Your task to perform on an android device: remove spam from my inbox in the gmail app Image 0: 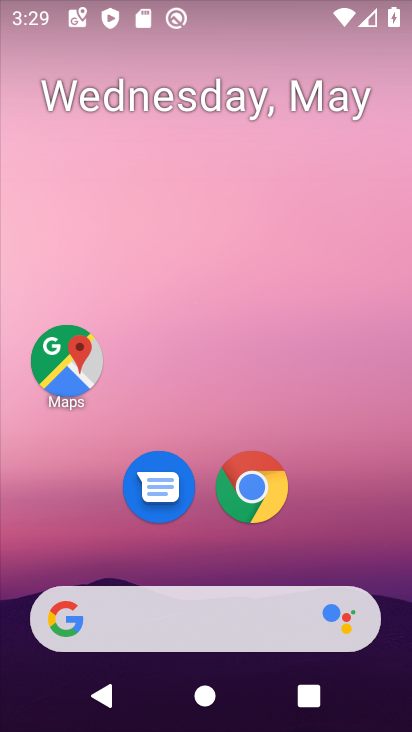
Step 0: drag from (325, 470) to (279, 29)
Your task to perform on an android device: remove spam from my inbox in the gmail app Image 1: 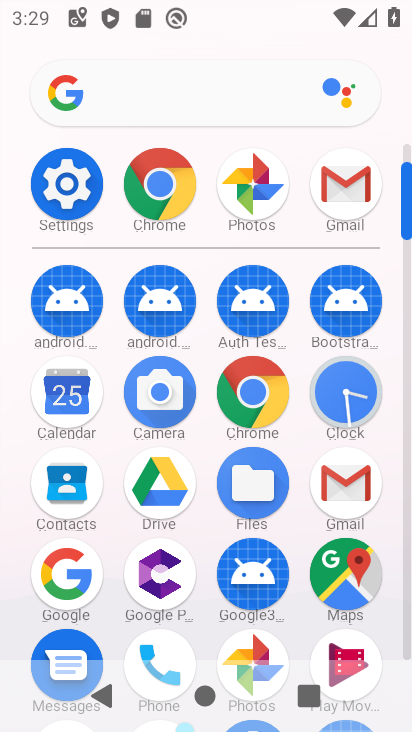
Step 1: drag from (10, 582) to (38, 308)
Your task to perform on an android device: remove spam from my inbox in the gmail app Image 2: 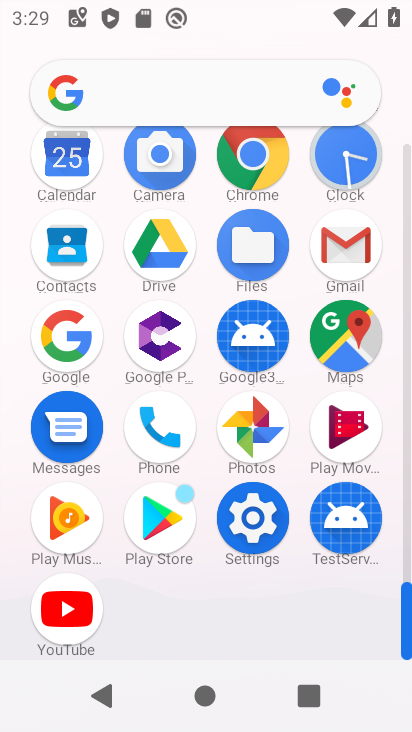
Step 2: drag from (11, 574) to (22, 288)
Your task to perform on an android device: remove spam from my inbox in the gmail app Image 3: 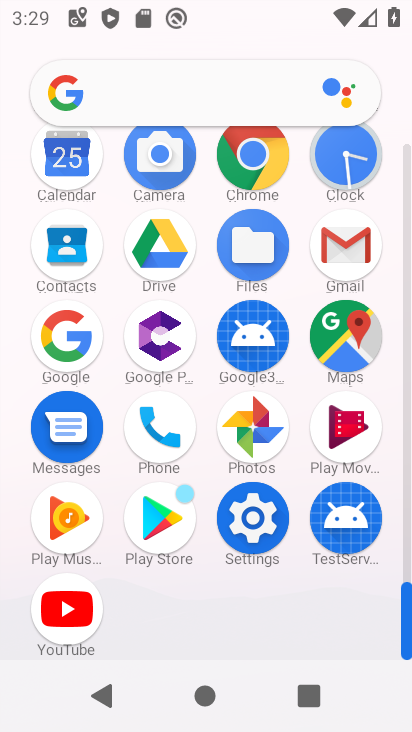
Step 3: click (347, 234)
Your task to perform on an android device: remove spam from my inbox in the gmail app Image 4: 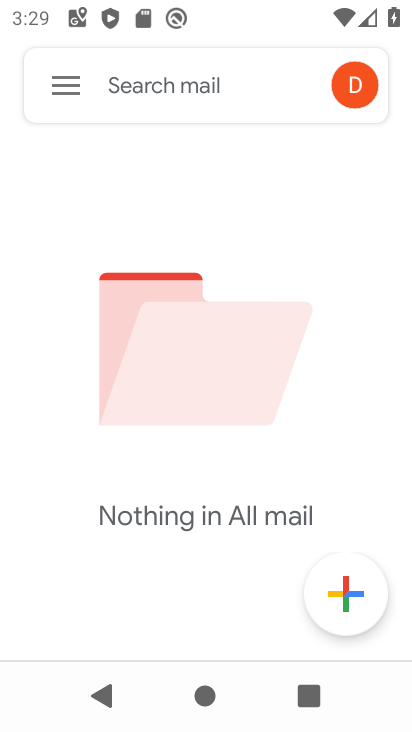
Step 4: click (56, 85)
Your task to perform on an android device: remove spam from my inbox in the gmail app Image 5: 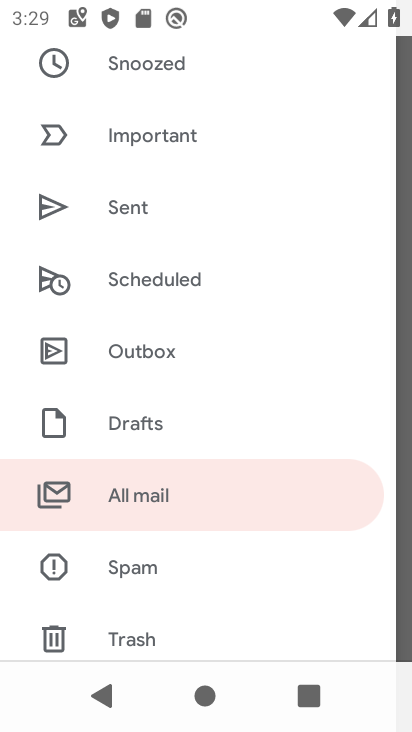
Step 5: click (157, 564)
Your task to perform on an android device: remove spam from my inbox in the gmail app Image 6: 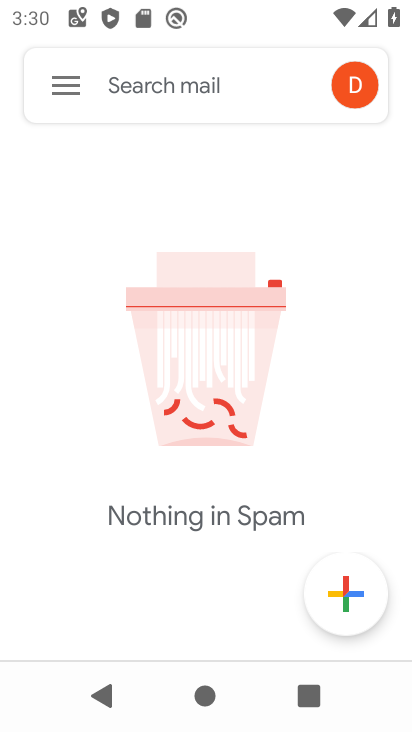
Step 6: task complete